Your task to perform on an android device: Open Yahoo.com Image 0: 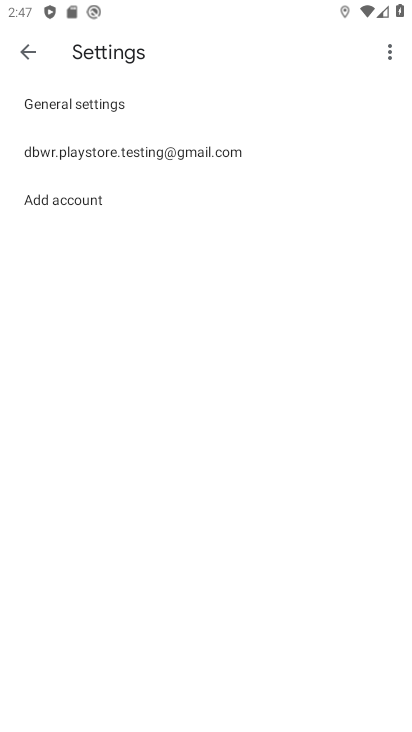
Step 0: press back button
Your task to perform on an android device: Open Yahoo.com Image 1: 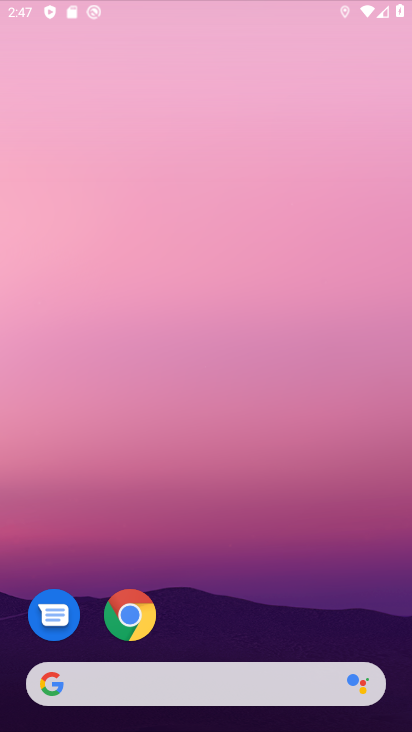
Step 1: press home button
Your task to perform on an android device: Open Yahoo.com Image 2: 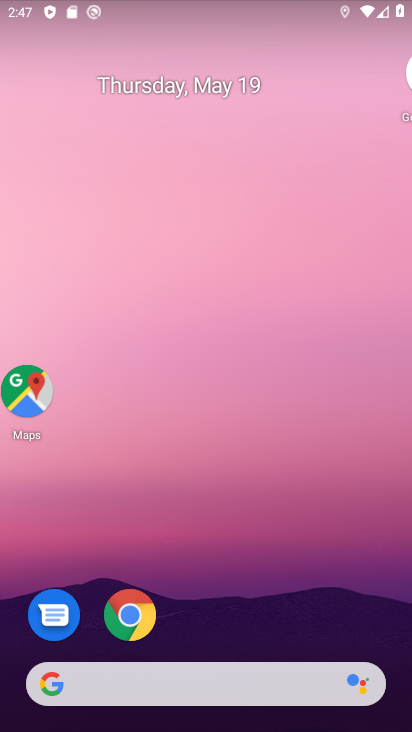
Step 2: click (132, 634)
Your task to perform on an android device: Open Yahoo.com Image 3: 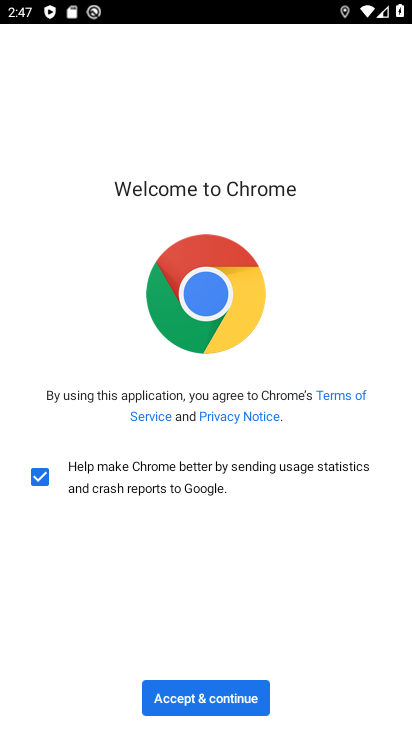
Step 3: click (228, 700)
Your task to perform on an android device: Open Yahoo.com Image 4: 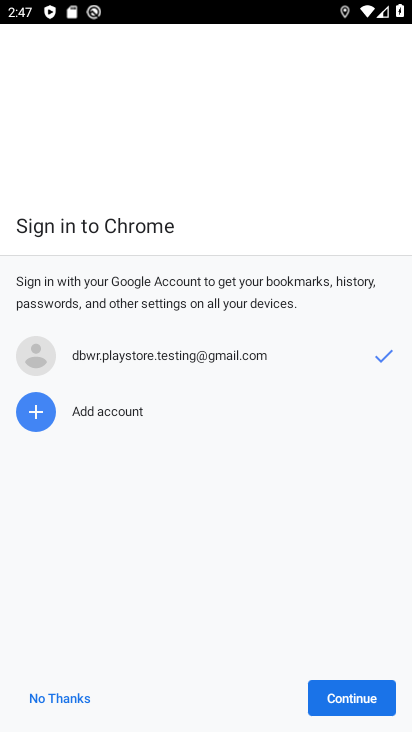
Step 4: click (327, 697)
Your task to perform on an android device: Open Yahoo.com Image 5: 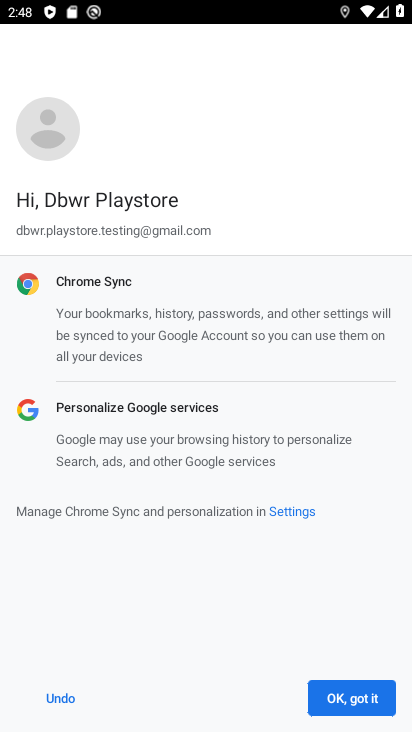
Step 5: click (377, 716)
Your task to perform on an android device: Open Yahoo.com Image 6: 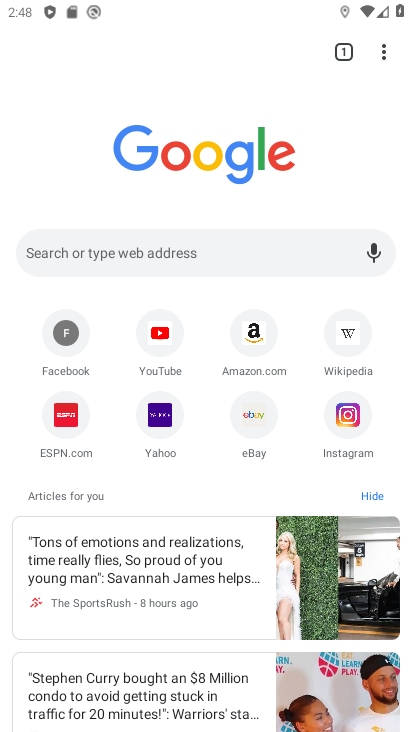
Step 6: click (148, 423)
Your task to perform on an android device: Open Yahoo.com Image 7: 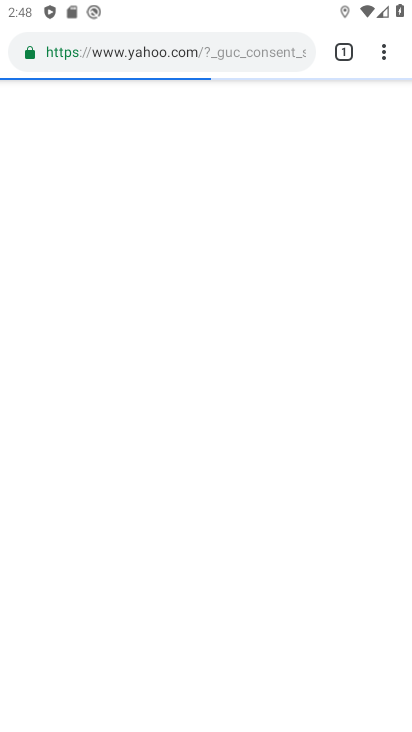
Step 7: task complete